Your task to perform on an android device: Is it going to rain this weekend? Image 0: 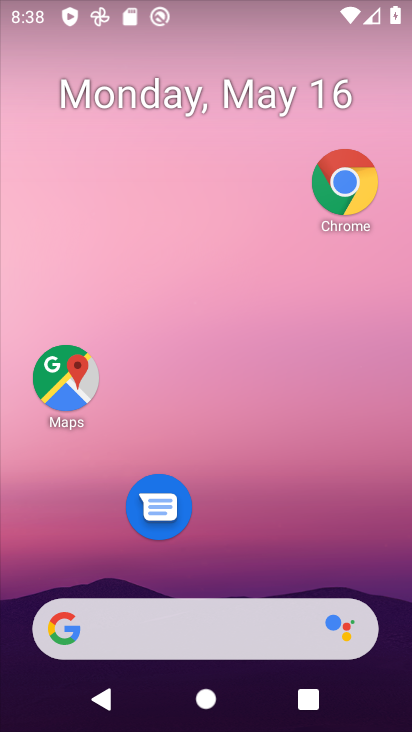
Step 0: click (352, 167)
Your task to perform on an android device: Is it going to rain this weekend? Image 1: 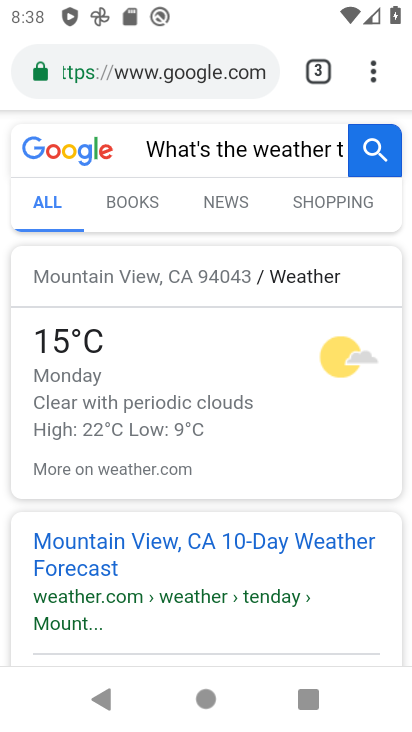
Step 1: click (200, 74)
Your task to perform on an android device: Is it going to rain this weekend? Image 2: 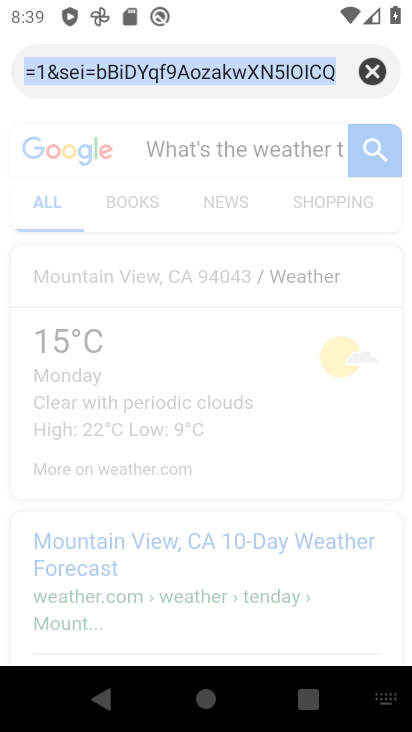
Step 2: click (375, 61)
Your task to perform on an android device: Is it going to rain this weekend? Image 3: 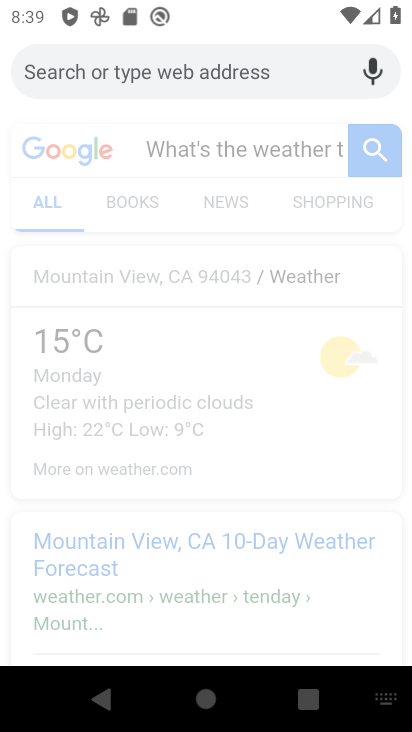
Step 3: type "Is it going to rain this weekend?"
Your task to perform on an android device: Is it going to rain this weekend? Image 4: 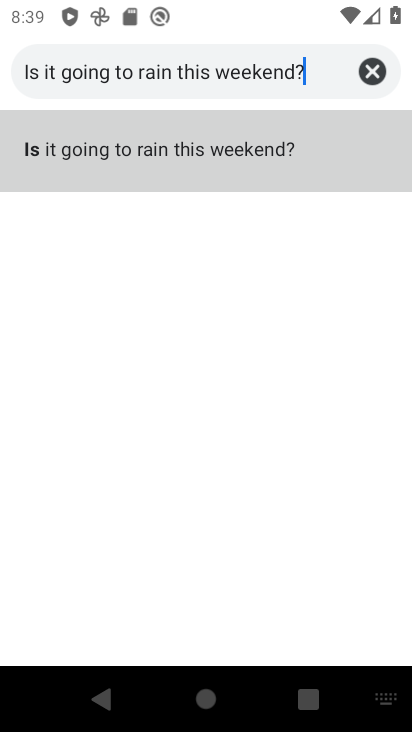
Step 4: click (241, 137)
Your task to perform on an android device: Is it going to rain this weekend? Image 5: 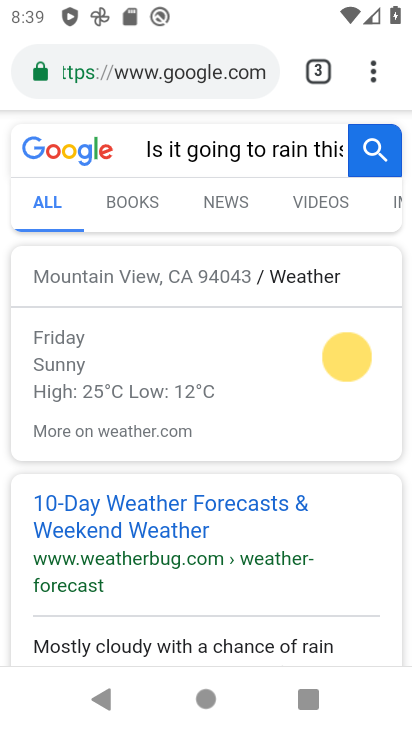
Step 5: task complete